Your task to perform on an android device: turn off airplane mode Image 0: 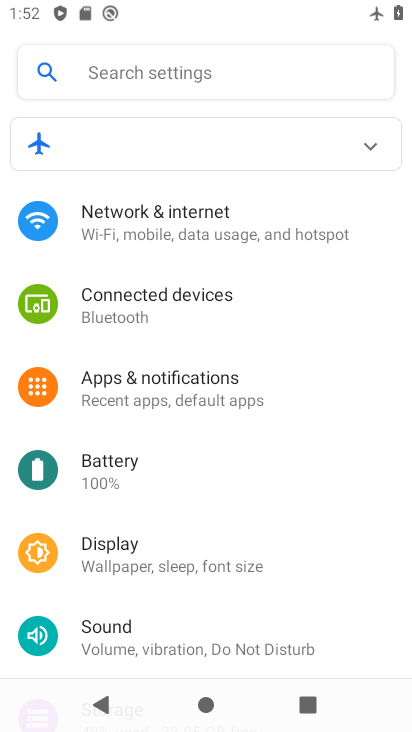
Step 0: click (223, 251)
Your task to perform on an android device: turn off airplane mode Image 1: 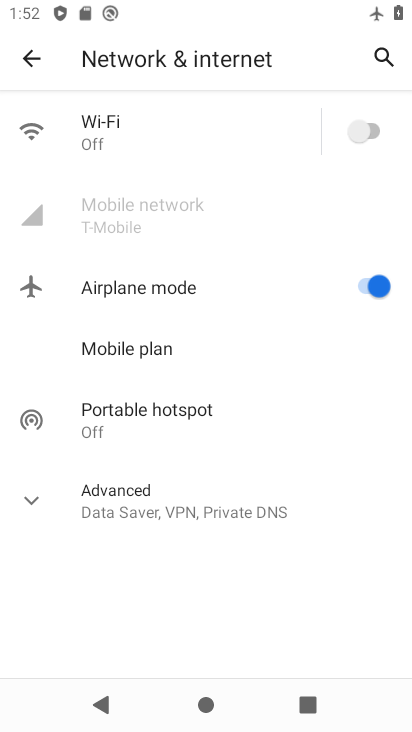
Step 1: click (376, 277)
Your task to perform on an android device: turn off airplane mode Image 2: 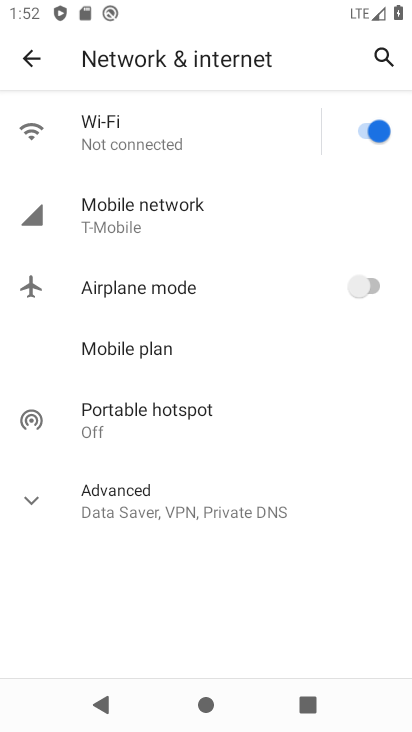
Step 2: task complete